Your task to perform on an android device: delete browsing data in the chrome app Image 0: 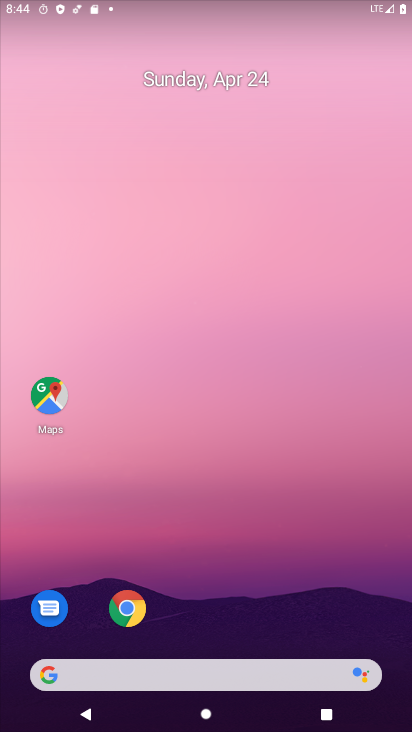
Step 0: click (138, 600)
Your task to perform on an android device: delete browsing data in the chrome app Image 1: 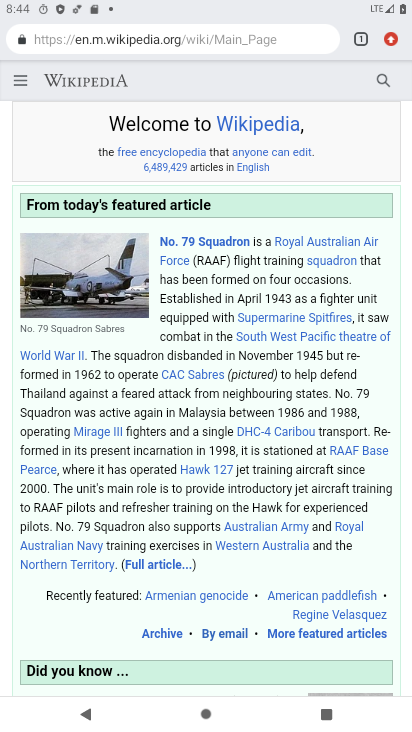
Step 1: click (391, 31)
Your task to perform on an android device: delete browsing data in the chrome app Image 2: 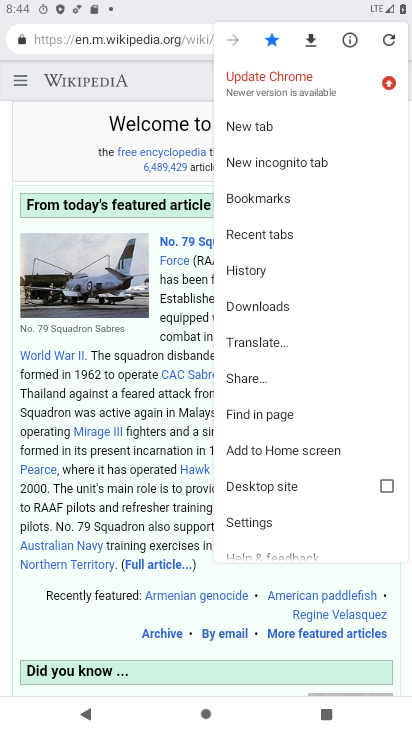
Step 2: click (266, 268)
Your task to perform on an android device: delete browsing data in the chrome app Image 3: 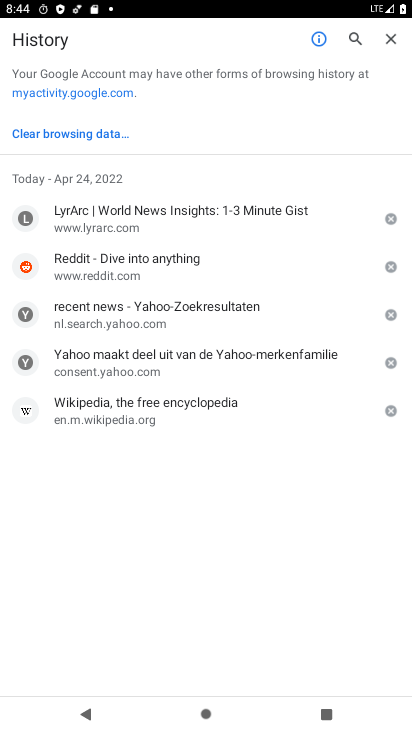
Step 3: click (96, 129)
Your task to perform on an android device: delete browsing data in the chrome app Image 4: 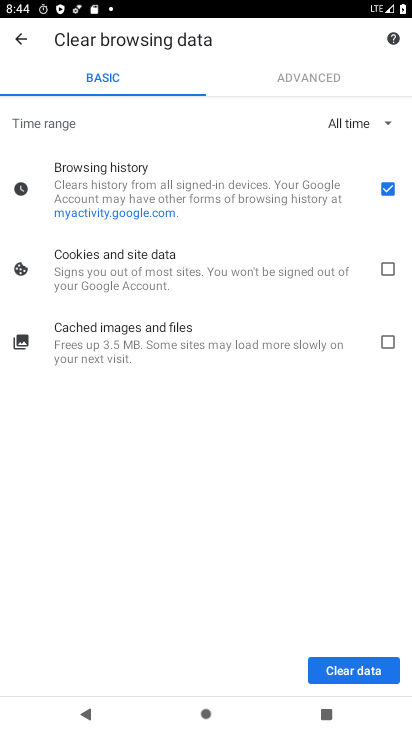
Step 4: click (357, 665)
Your task to perform on an android device: delete browsing data in the chrome app Image 5: 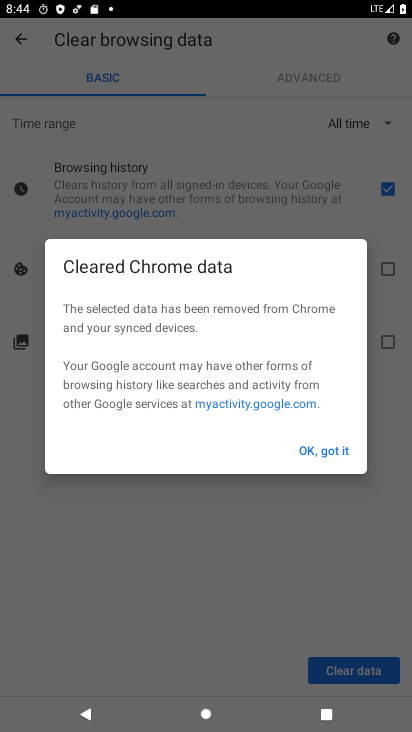
Step 5: click (341, 447)
Your task to perform on an android device: delete browsing data in the chrome app Image 6: 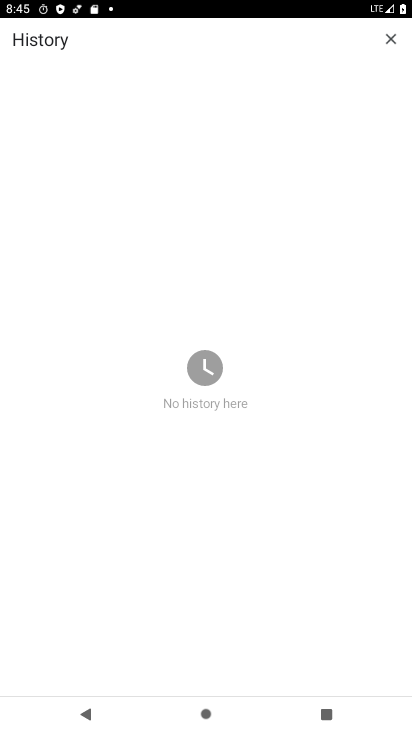
Step 6: task complete